Your task to perform on an android device: Is it going to rain tomorrow? Image 0: 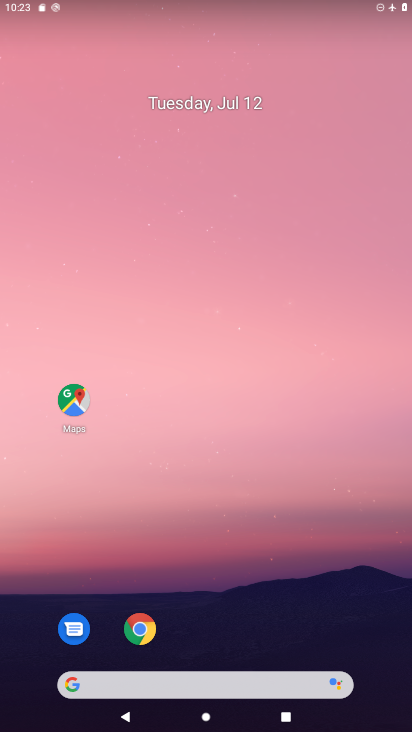
Step 0: drag from (230, 673) to (241, 26)
Your task to perform on an android device: Is it going to rain tomorrow? Image 1: 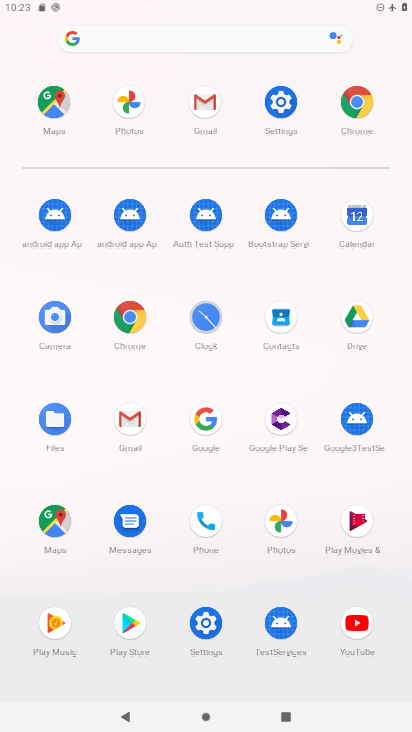
Step 1: click (138, 317)
Your task to perform on an android device: Is it going to rain tomorrow? Image 2: 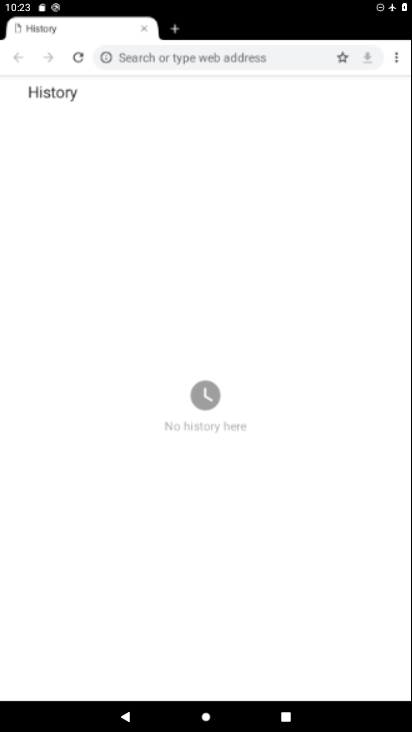
Step 2: click (190, 63)
Your task to perform on an android device: Is it going to rain tomorrow? Image 3: 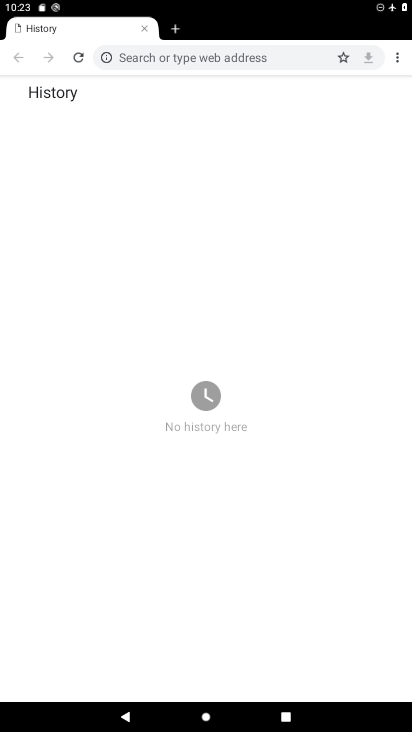
Step 3: click (242, 47)
Your task to perform on an android device: Is it going to rain tomorrow? Image 4: 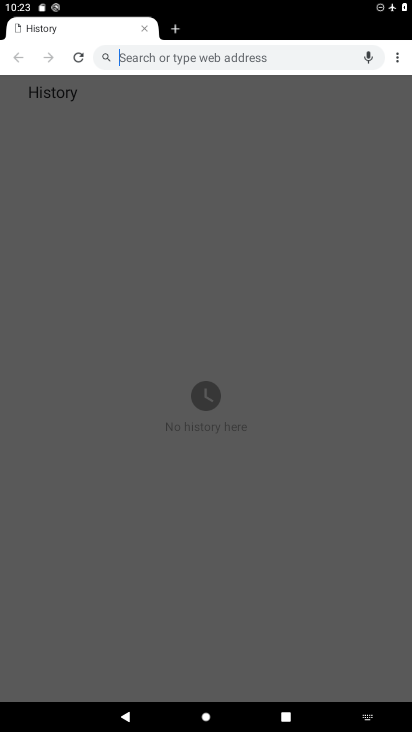
Step 4: type "going to rain tomorrow"
Your task to perform on an android device: Is it going to rain tomorrow? Image 5: 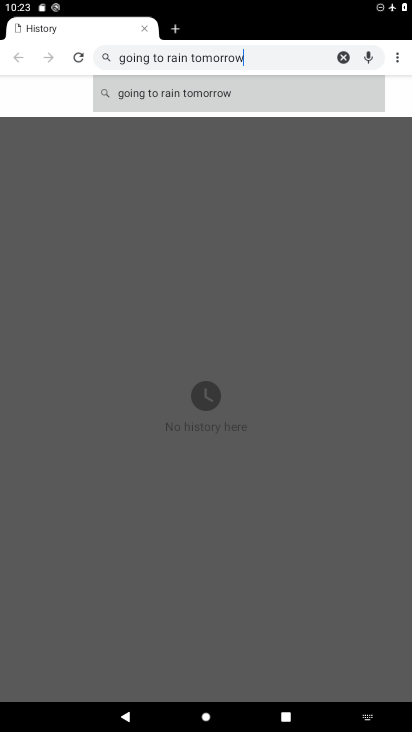
Step 5: click (174, 95)
Your task to perform on an android device: Is it going to rain tomorrow? Image 6: 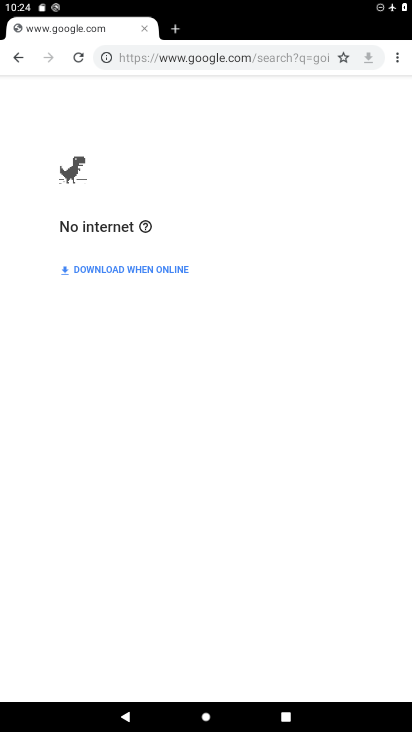
Step 6: task complete